Your task to perform on an android device: open a new tab in the chrome app Image 0: 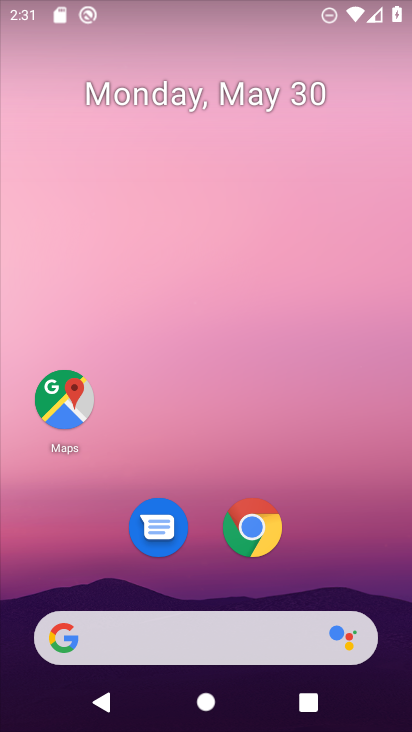
Step 0: click (341, 350)
Your task to perform on an android device: open a new tab in the chrome app Image 1: 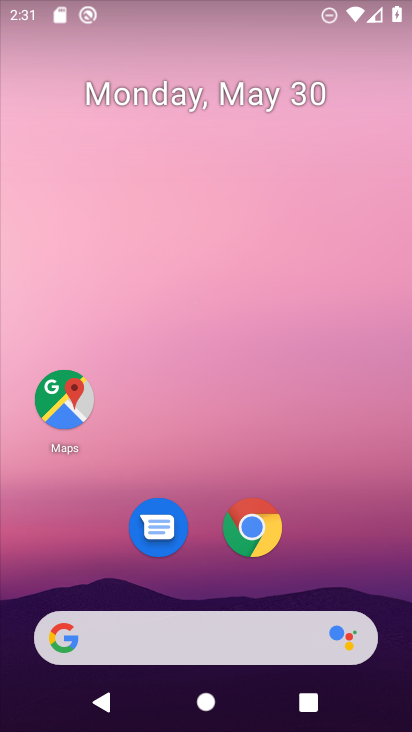
Step 1: drag from (256, 617) to (205, 9)
Your task to perform on an android device: open a new tab in the chrome app Image 2: 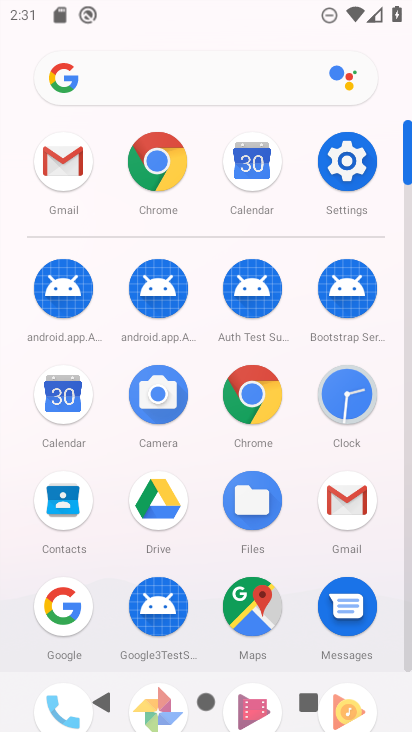
Step 2: drag from (215, 661) to (198, 20)
Your task to perform on an android device: open a new tab in the chrome app Image 3: 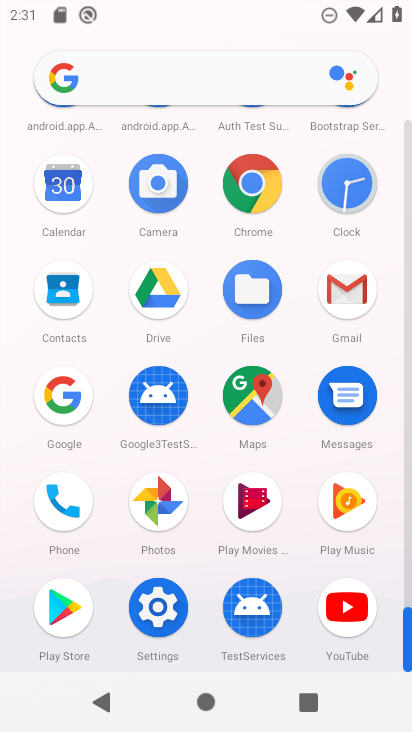
Step 3: click (247, 181)
Your task to perform on an android device: open a new tab in the chrome app Image 4: 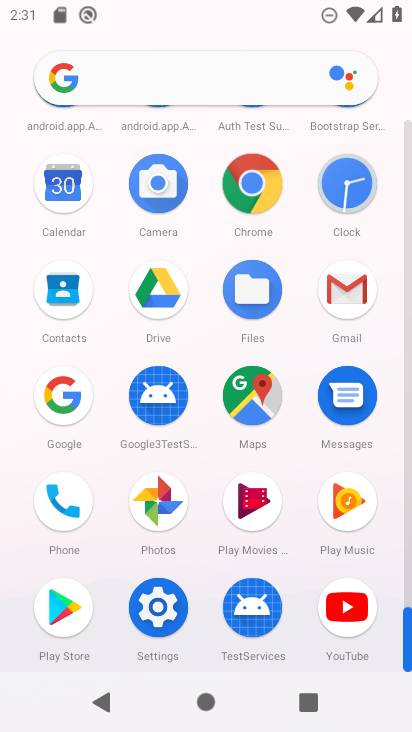
Step 4: click (248, 182)
Your task to perform on an android device: open a new tab in the chrome app Image 5: 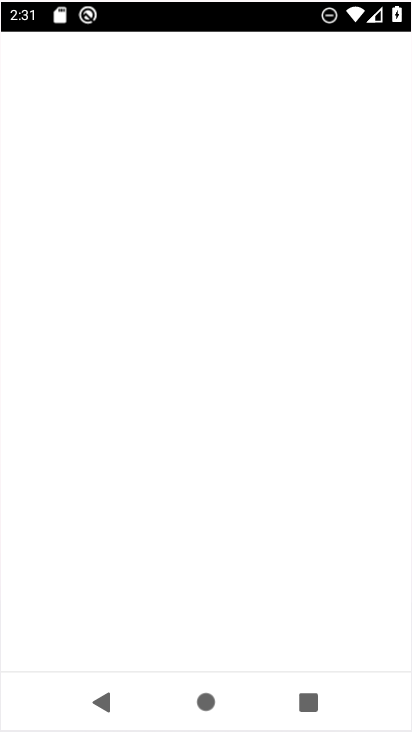
Step 5: click (249, 185)
Your task to perform on an android device: open a new tab in the chrome app Image 6: 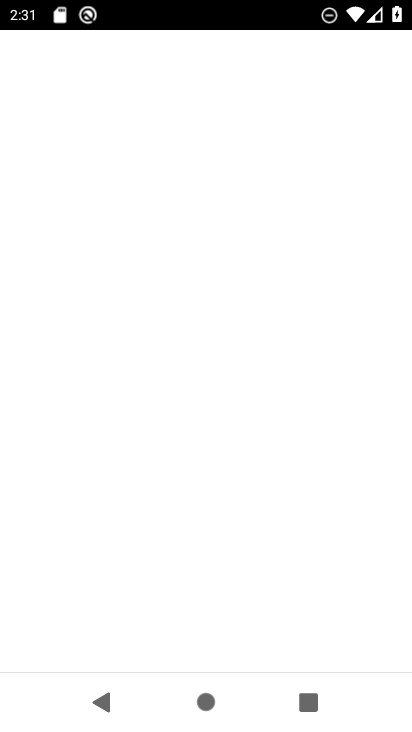
Step 6: click (249, 185)
Your task to perform on an android device: open a new tab in the chrome app Image 7: 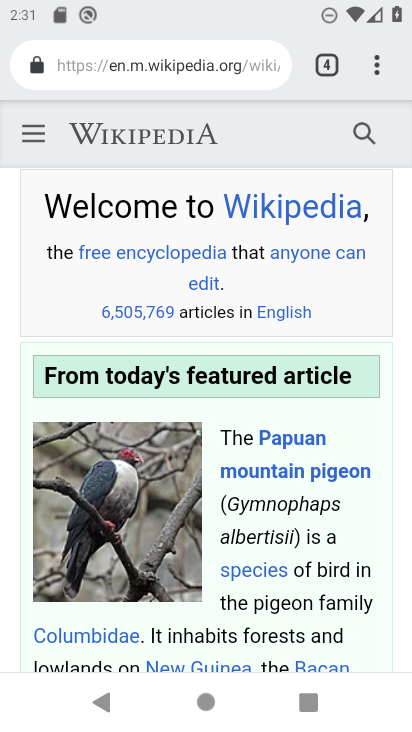
Step 7: drag from (372, 67) to (141, 111)
Your task to perform on an android device: open a new tab in the chrome app Image 8: 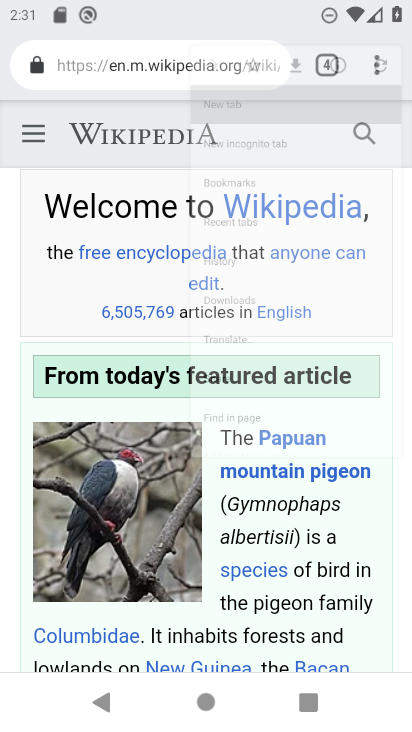
Step 8: click (141, 111)
Your task to perform on an android device: open a new tab in the chrome app Image 9: 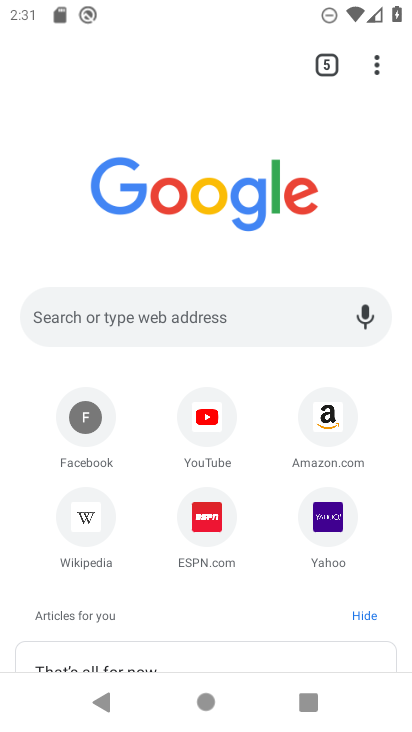
Step 9: drag from (373, 67) to (116, 117)
Your task to perform on an android device: open a new tab in the chrome app Image 10: 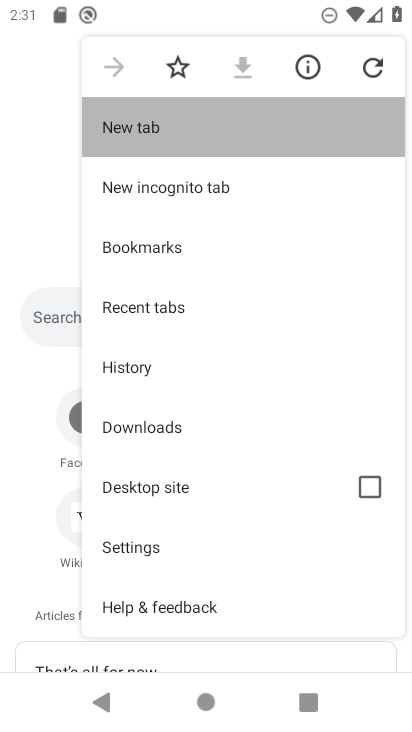
Step 10: click (123, 121)
Your task to perform on an android device: open a new tab in the chrome app Image 11: 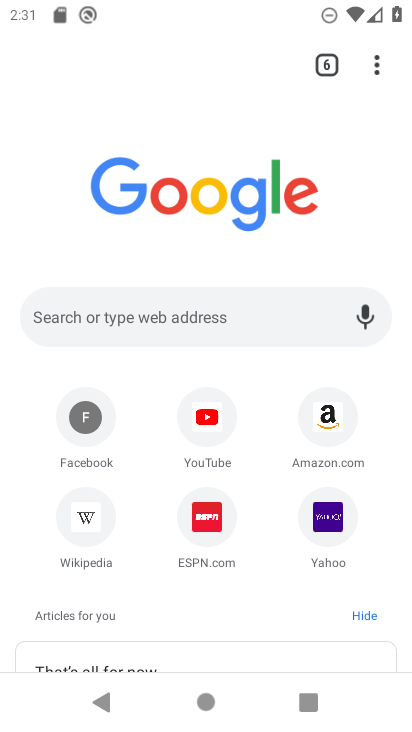
Step 11: task complete